Your task to perform on an android device: change timer sound Image 0: 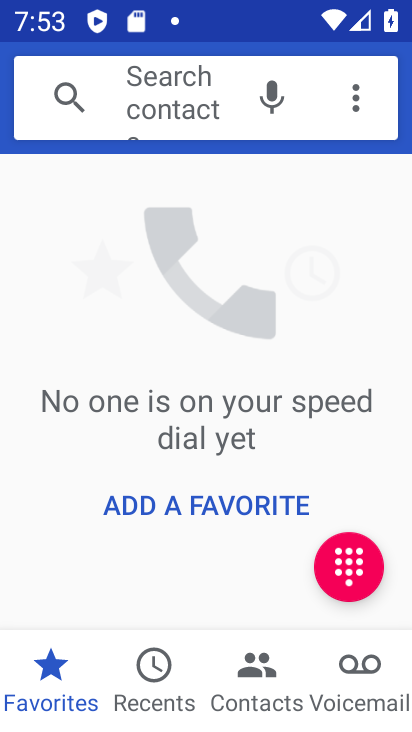
Step 0: press home button
Your task to perform on an android device: change timer sound Image 1: 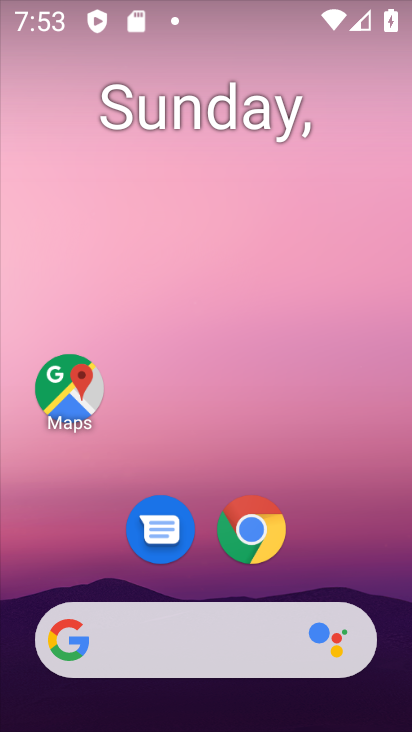
Step 1: drag from (376, 525) to (298, 2)
Your task to perform on an android device: change timer sound Image 2: 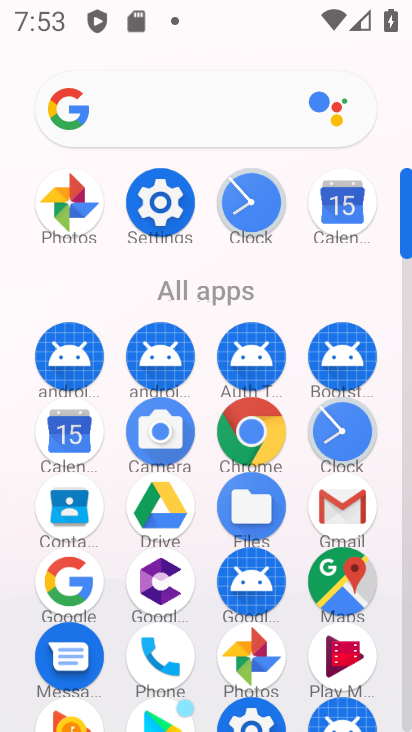
Step 2: click (245, 210)
Your task to perform on an android device: change timer sound Image 3: 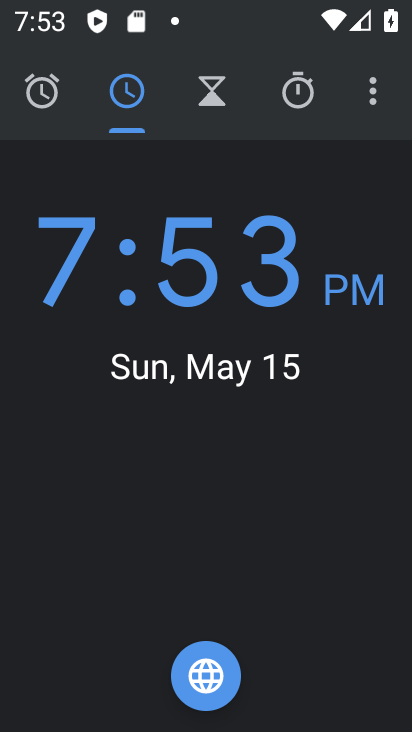
Step 3: click (373, 120)
Your task to perform on an android device: change timer sound Image 4: 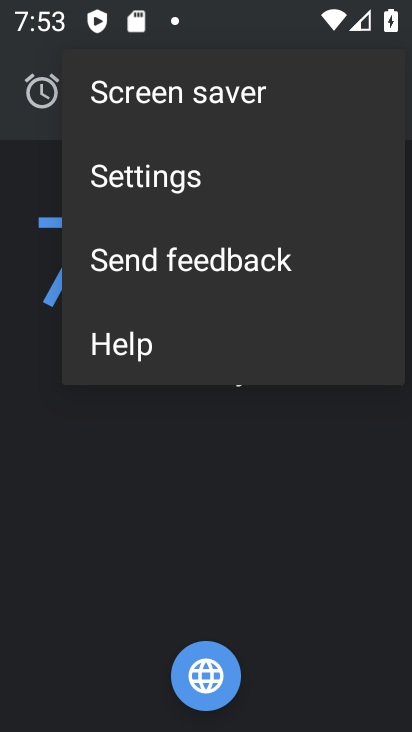
Step 4: click (132, 171)
Your task to perform on an android device: change timer sound Image 5: 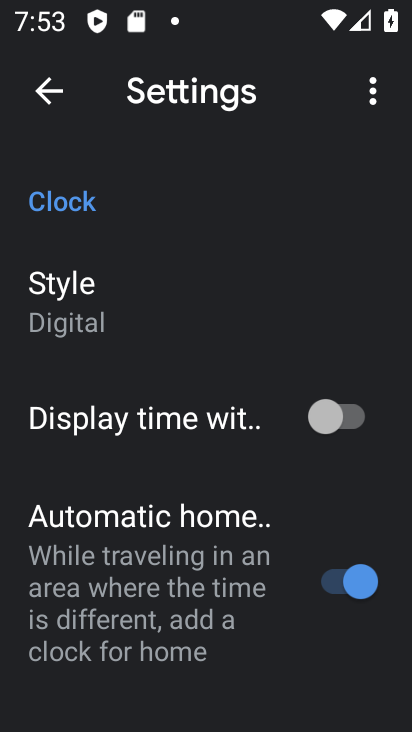
Step 5: drag from (340, 555) to (343, 67)
Your task to perform on an android device: change timer sound Image 6: 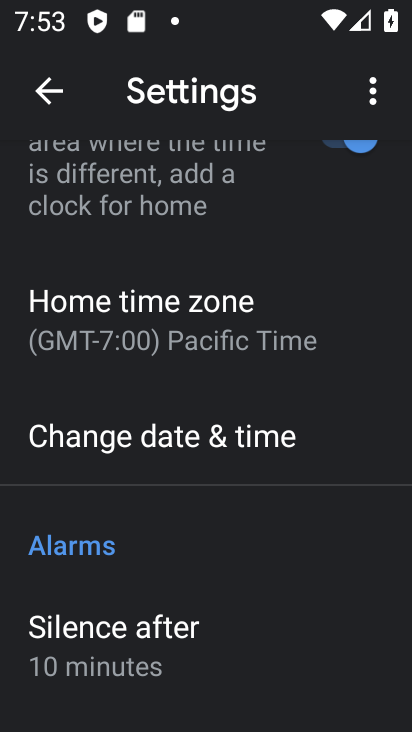
Step 6: drag from (194, 563) to (181, 166)
Your task to perform on an android device: change timer sound Image 7: 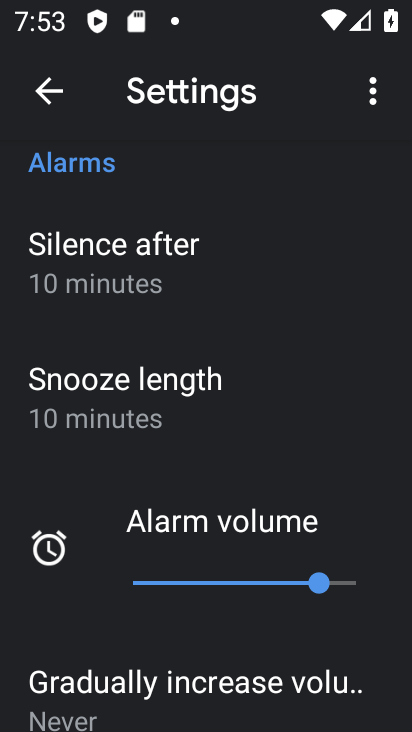
Step 7: drag from (213, 659) to (277, 7)
Your task to perform on an android device: change timer sound Image 8: 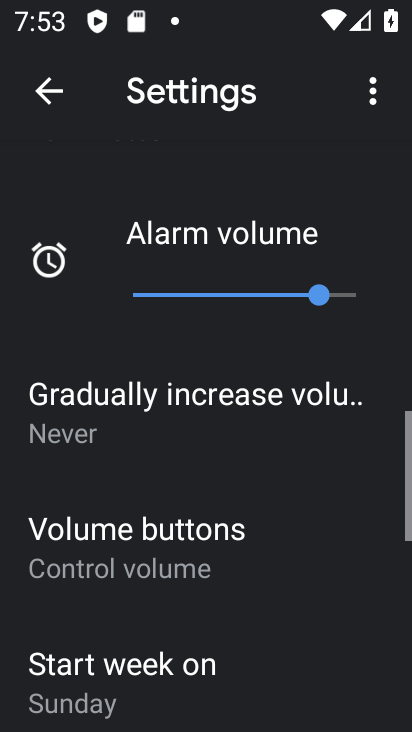
Step 8: drag from (302, 548) to (271, 85)
Your task to perform on an android device: change timer sound Image 9: 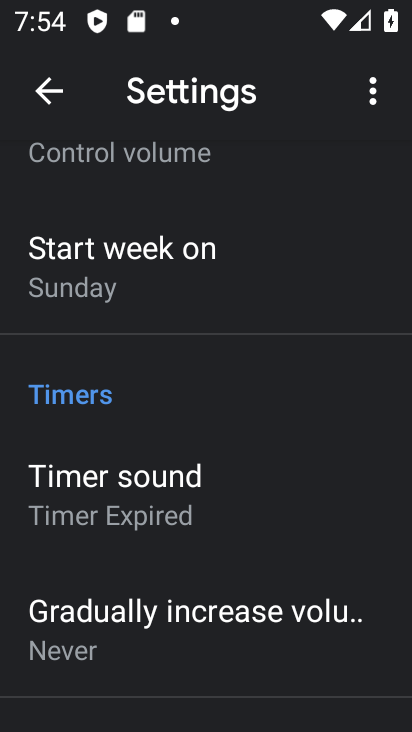
Step 9: click (205, 478)
Your task to perform on an android device: change timer sound Image 10: 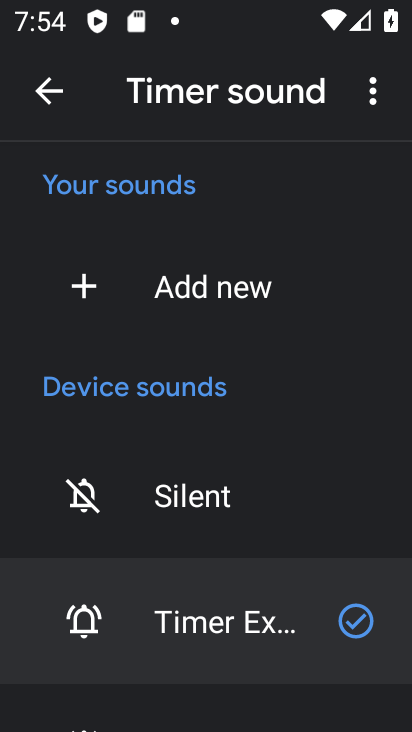
Step 10: drag from (220, 600) to (240, 250)
Your task to perform on an android device: change timer sound Image 11: 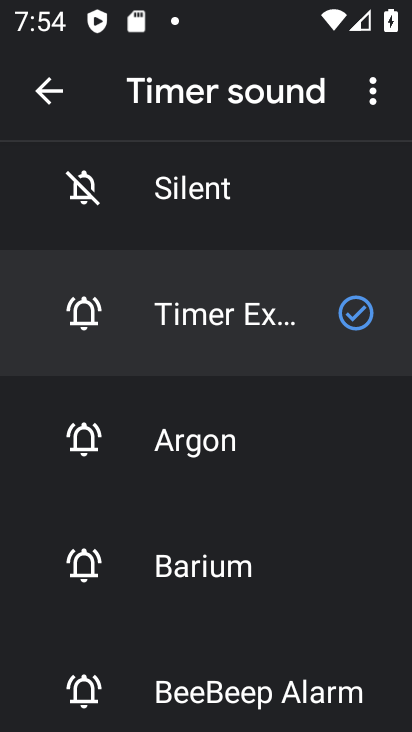
Step 11: click (255, 542)
Your task to perform on an android device: change timer sound Image 12: 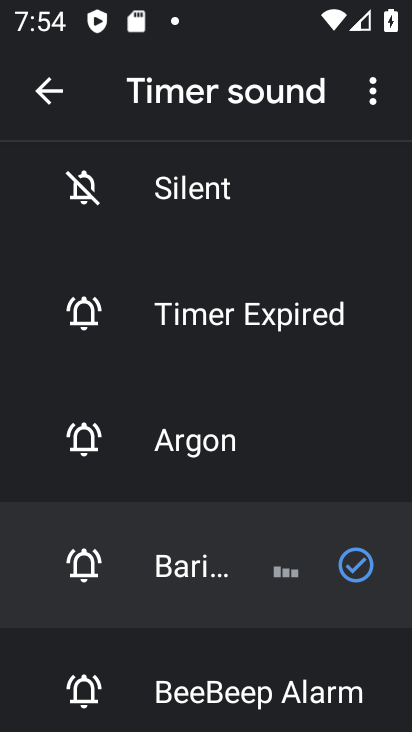
Step 12: task complete